Your task to perform on an android device: turn pop-ups on in chrome Image 0: 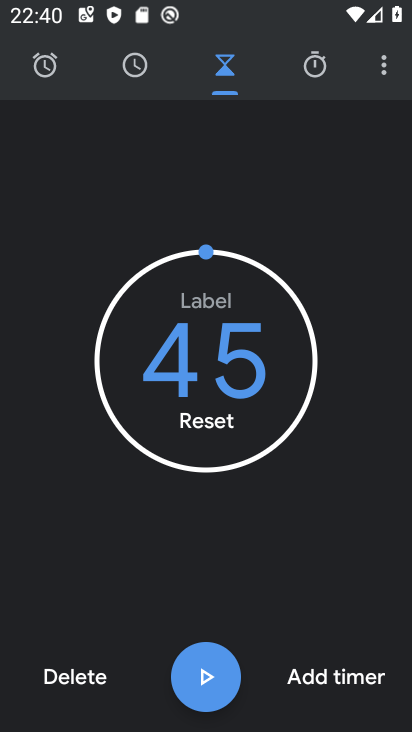
Step 0: press home button
Your task to perform on an android device: turn pop-ups on in chrome Image 1: 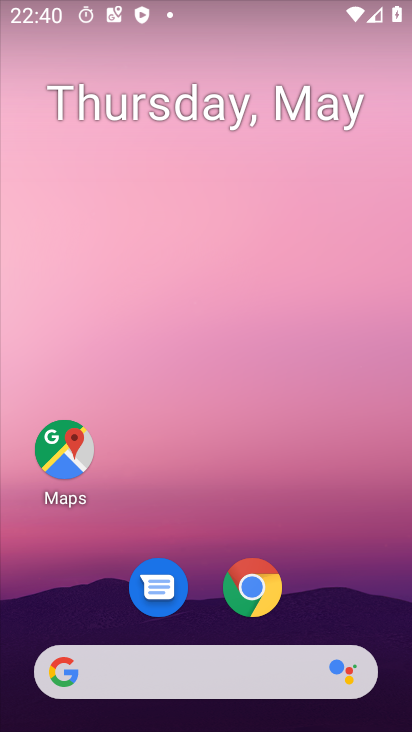
Step 1: click (249, 592)
Your task to perform on an android device: turn pop-ups on in chrome Image 2: 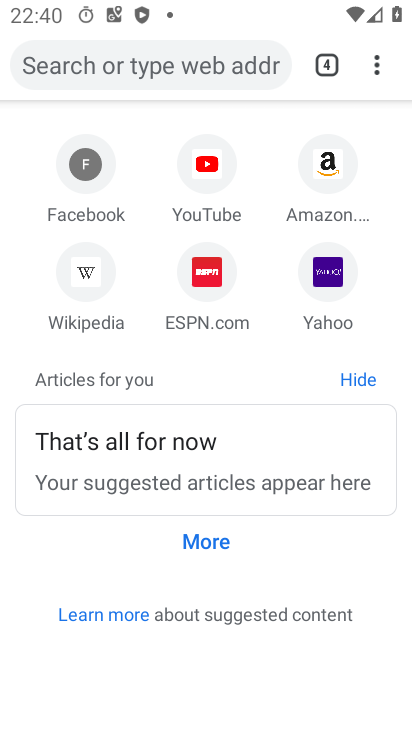
Step 2: click (372, 65)
Your task to perform on an android device: turn pop-ups on in chrome Image 3: 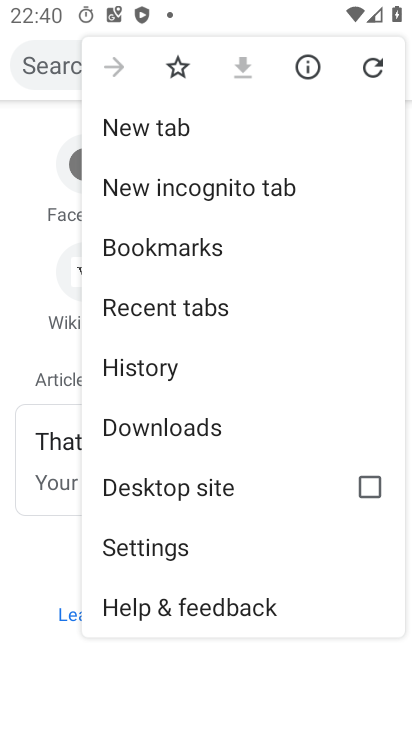
Step 3: click (173, 549)
Your task to perform on an android device: turn pop-ups on in chrome Image 4: 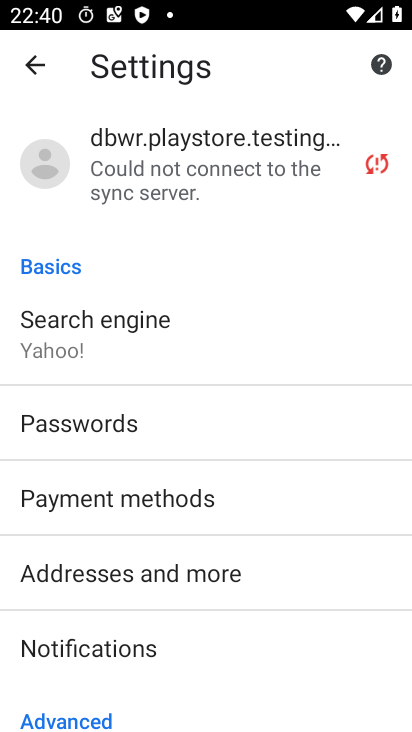
Step 4: drag from (312, 605) to (233, 205)
Your task to perform on an android device: turn pop-ups on in chrome Image 5: 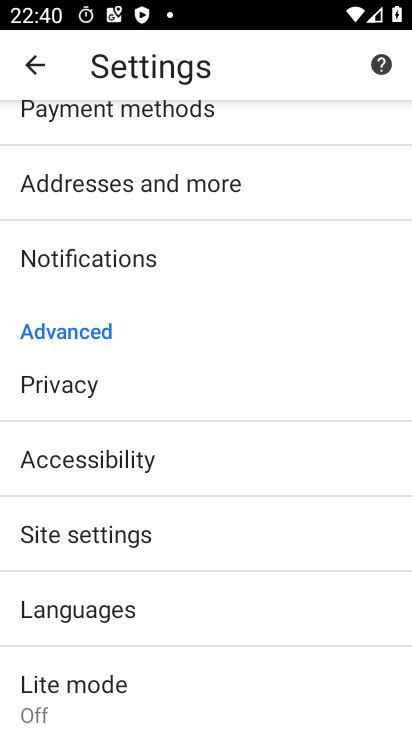
Step 5: click (68, 536)
Your task to perform on an android device: turn pop-ups on in chrome Image 6: 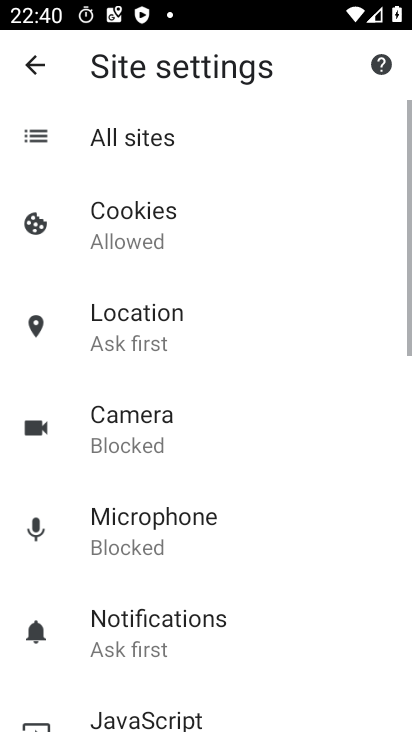
Step 6: drag from (319, 524) to (295, 229)
Your task to perform on an android device: turn pop-ups on in chrome Image 7: 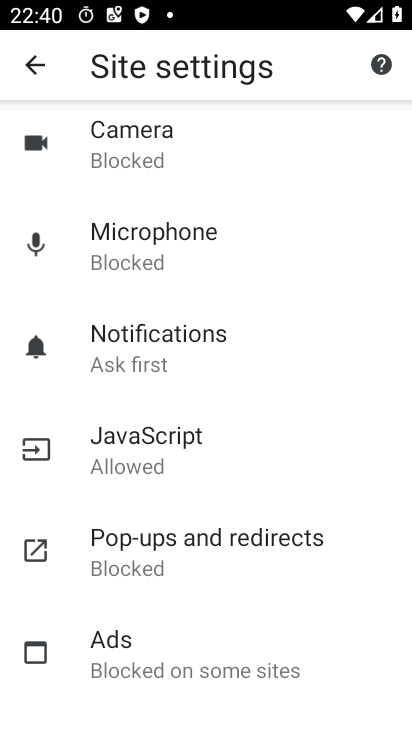
Step 7: click (133, 547)
Your task to perform on an android device: turn pop-ups on in chrome Image 8: 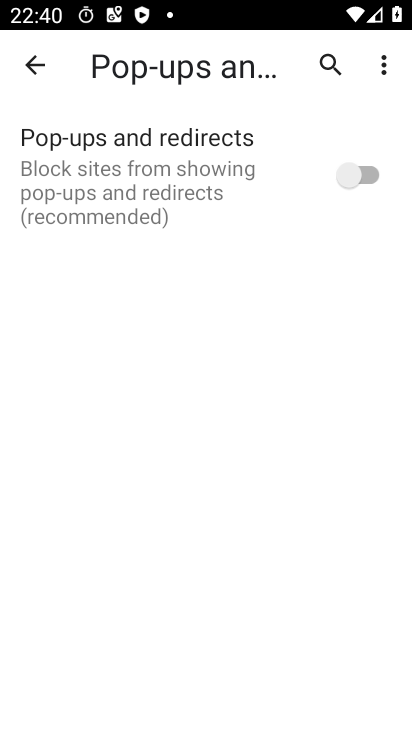
Step 8: click (332, 183)
Your task to perform on an android device: turn pop-ups on in chrome Image 9: 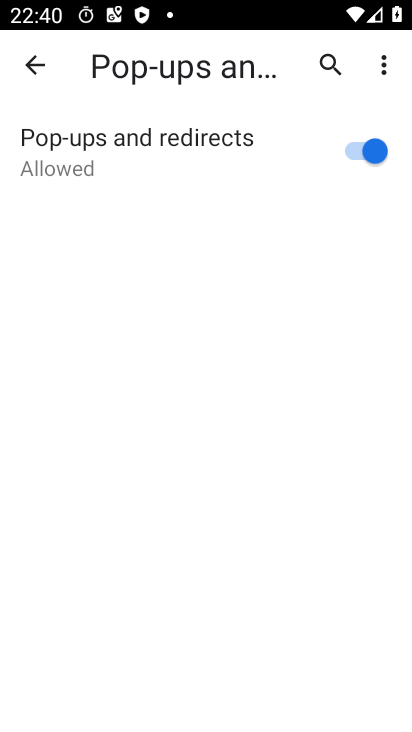
Step 9: task complete